Your task to perform on an android device: set an alarm Image 0: 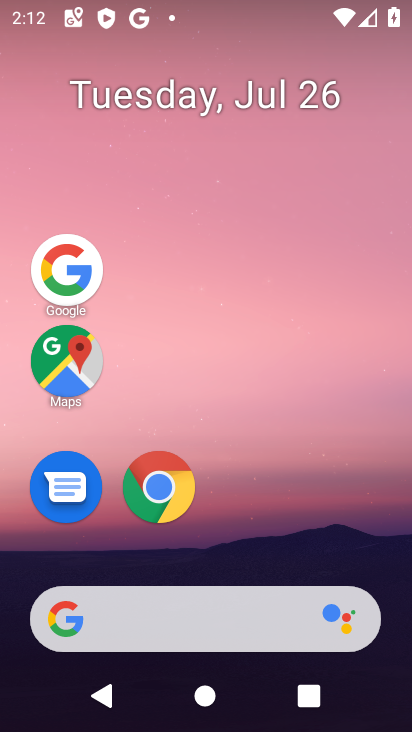
Step 0: drag from (230, 596) to (240, 23)
Your task to perform on an android device: set an alarm Image 1: 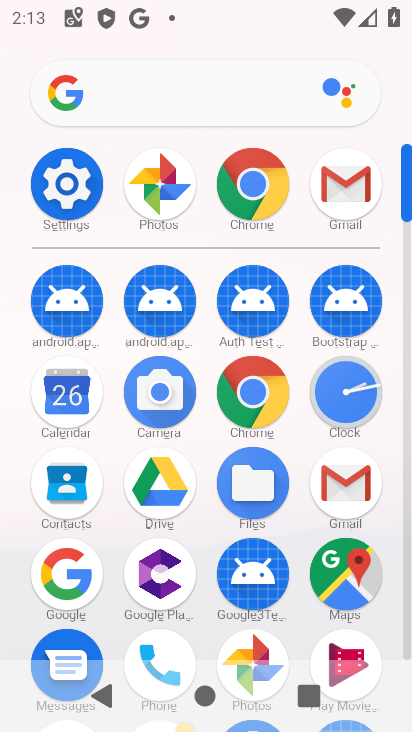
Step 1: click (355, 395)
Your task to perform on an android device: set an alarm Image 2: 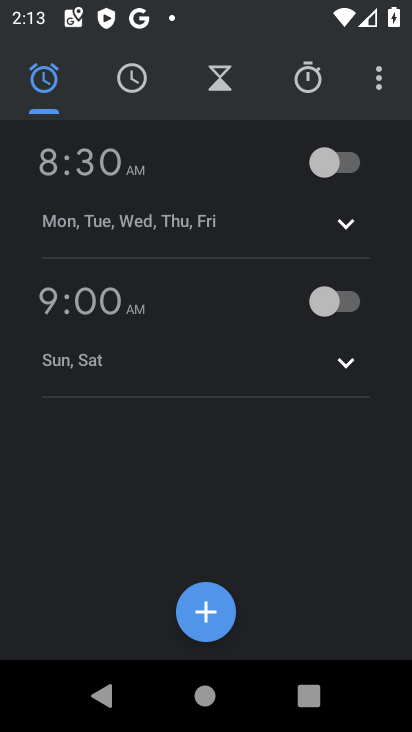
Step 2: click (205, 620)
Your task to perform on an android device: set an alarm Image 3: 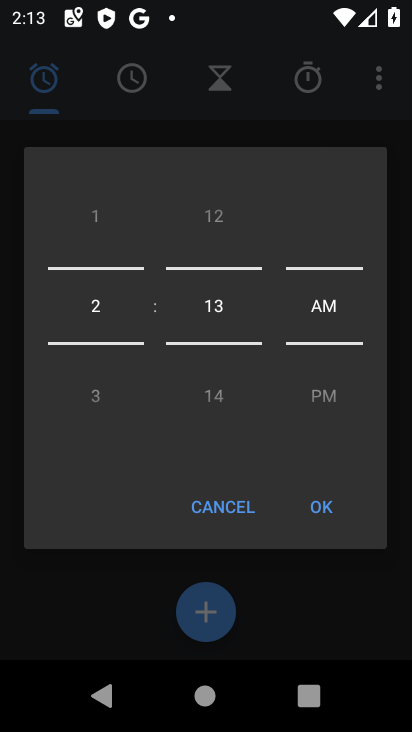
Step 3: click (331, 506)
Your task to perform on an android device: set an alarm Image 4: 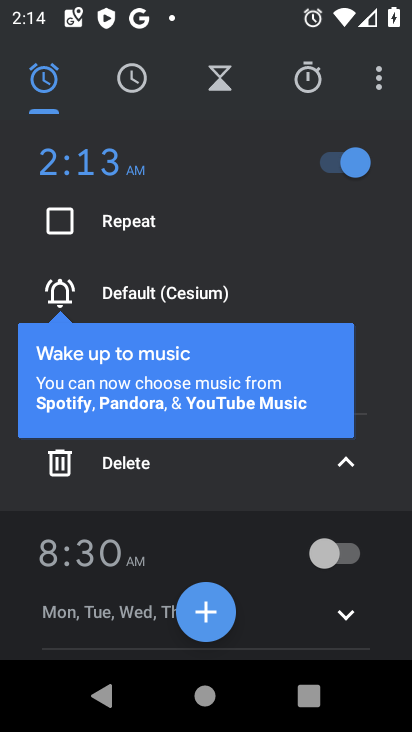
Step 4: task complete